Your task to perform on an android device: turn smart compose on in the gmail app Image 0: 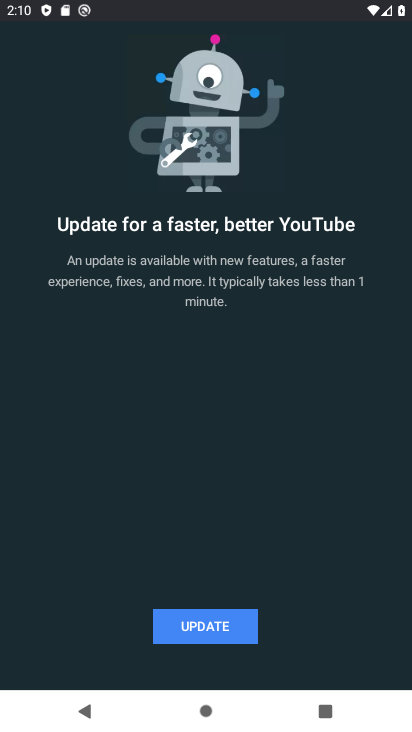
Step 0: press home button
Your task to perform on an android device: turn smart compose on in the gmail app Image 1: 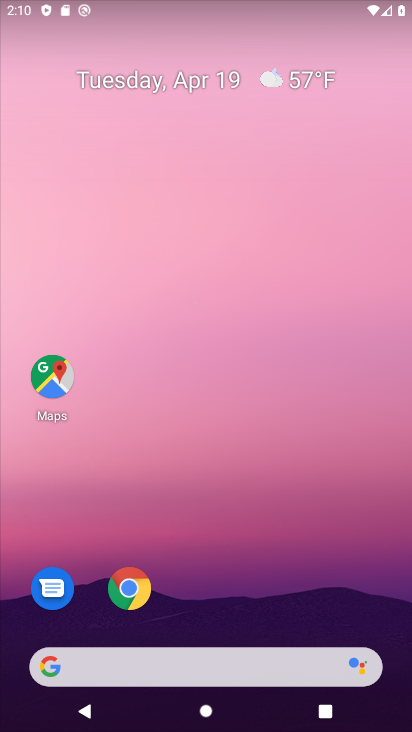
Step 1: drag from (243, 523) to (310, 106)
Your task to perform on an android device: turn smart compose on in the gmail app Image 2: 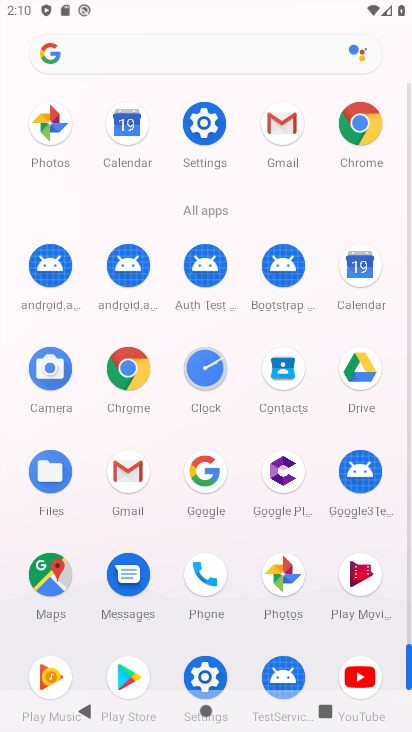
Step 2: click (281, 136)
Your task to perform on an android device: turn smart compose on in the gmail app Image 3: 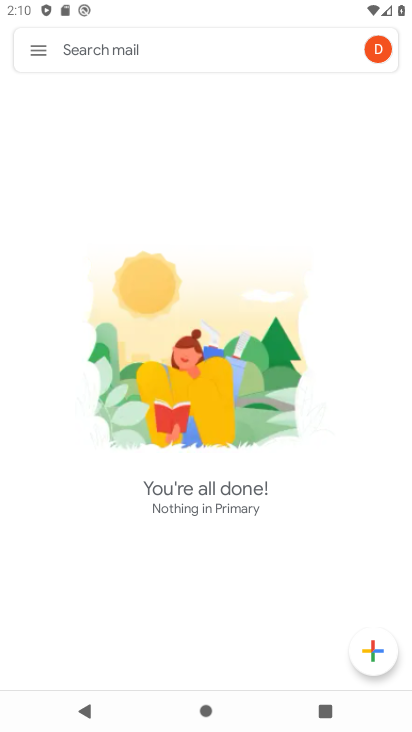
Step 3: click (36, 45)
Your task to perform on an android device: turn smart compose on in the gmail app Image 4: 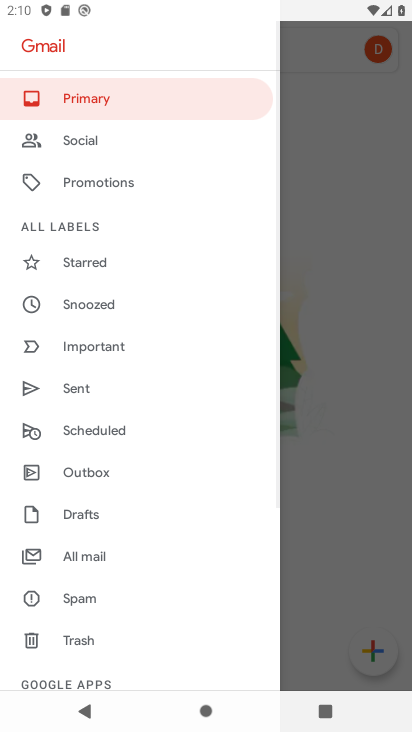
Step 4: drag from (150, 575) to (183, 247)
Your task to perform on an android device: turn smart compose on in the gmail app Image 5: 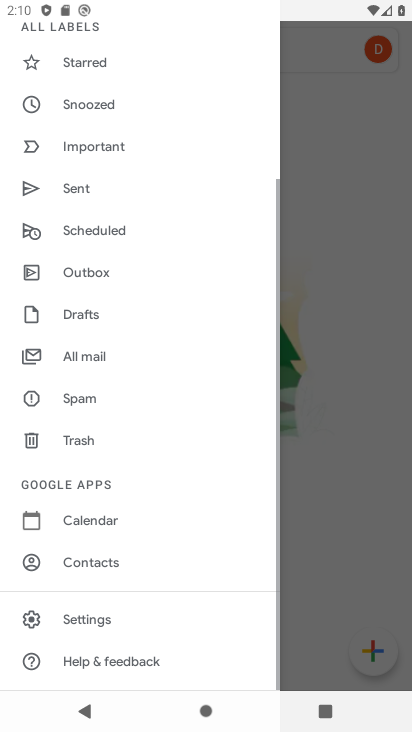
Step 5: click (94, 614)
Your task to perform on an android device: turn smart compose on in the gmail app Image 6: 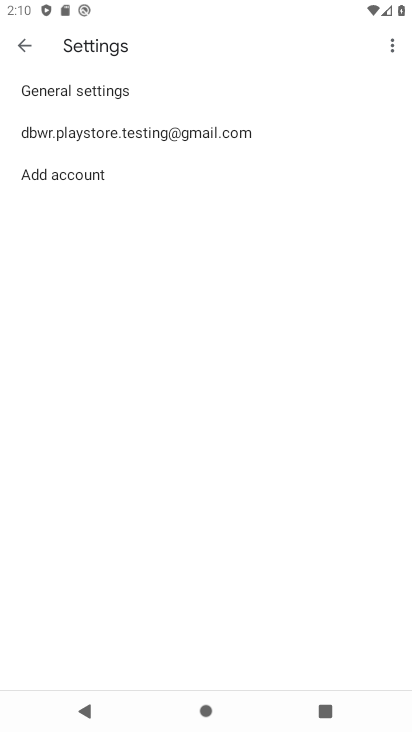
Step 6: click (234, 126)
Your task to perform on an android device: turn smart compose on in the gmail app Image 7: 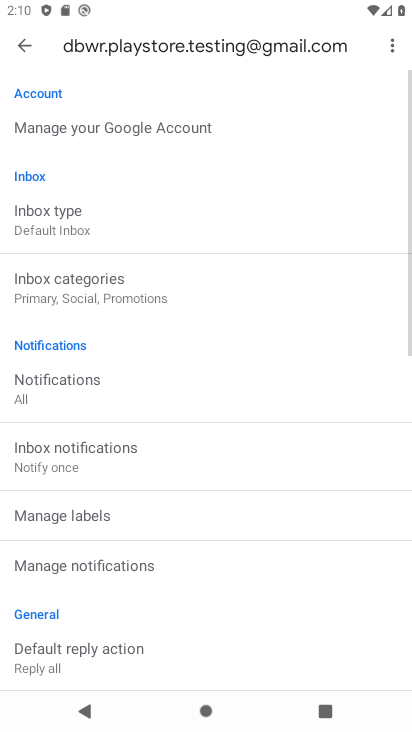
Step 7: task complete